Your task to perform on an android device: Open my contact list Image 0: 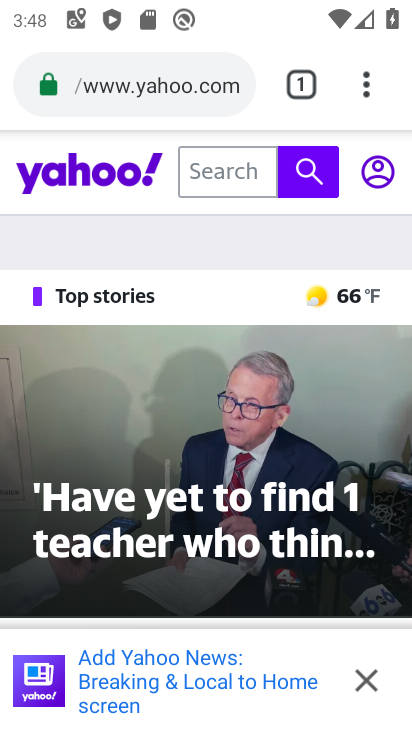
Step 0: press home button
Your task to perform on an android device: Open my contact list Image 1: 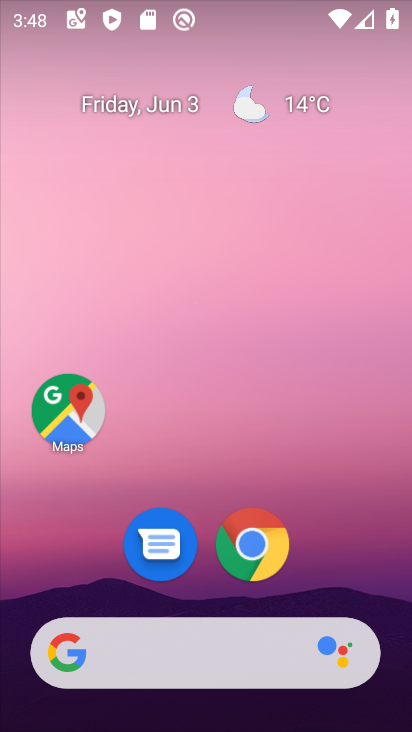
Step 1: drag from (392, 628) to (291, 75)
Your task to perform on an android device: Open my contact list Image 2: 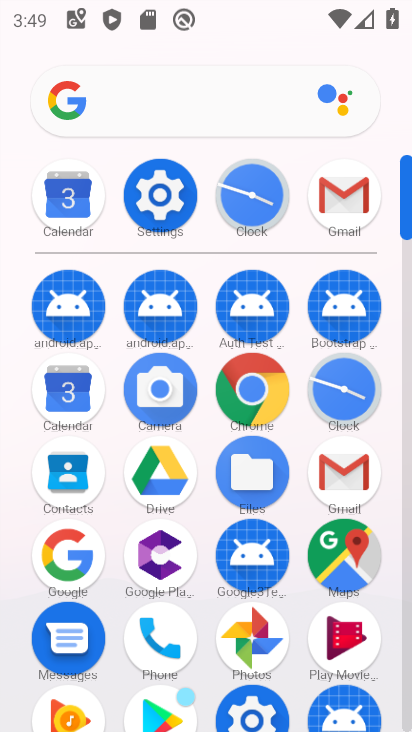
Step 2: click (407, 701)
Your task to perform on an android device: Open my contact list Image 3: 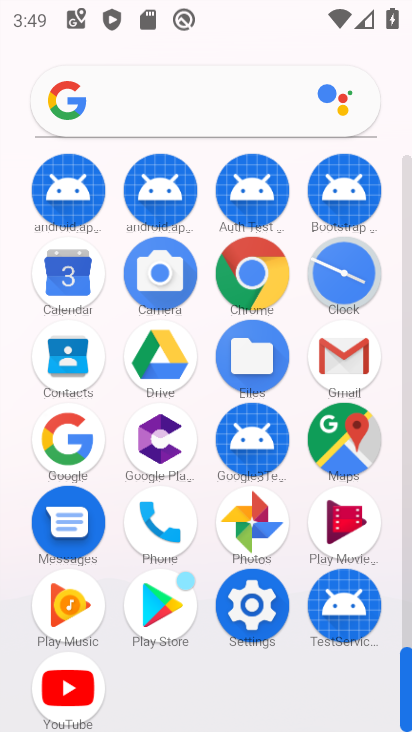
Step 3: click (64, 356)
Your task to perform on an android device: Open my contact list Image 4: 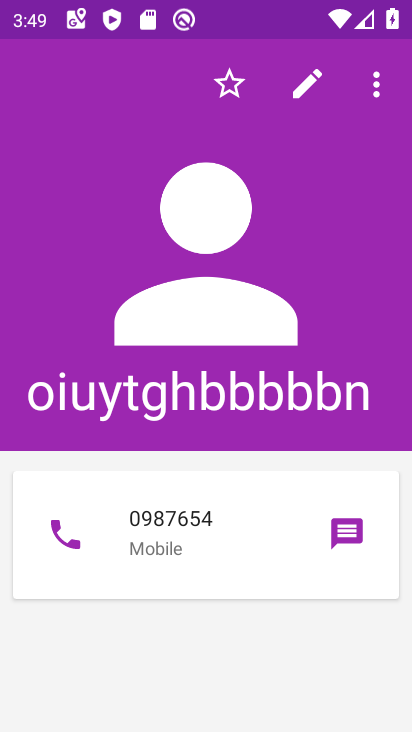
Step 4: task complete